Your task to perform on an android device: Find coffee shops on Maps Image 0: 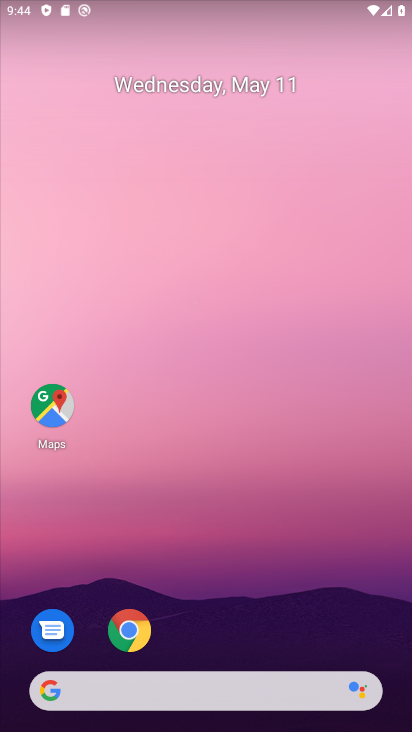
Step 0: press home button
Your task to perform on an android device: Find coffee shops on Maps Image 1: 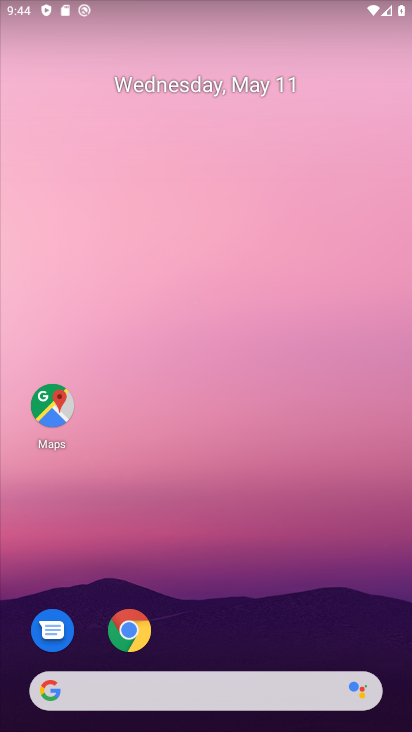
Step 1: click (145, 644)
Your task to perform on an android device: Find coffee shops on Maps Image 2: 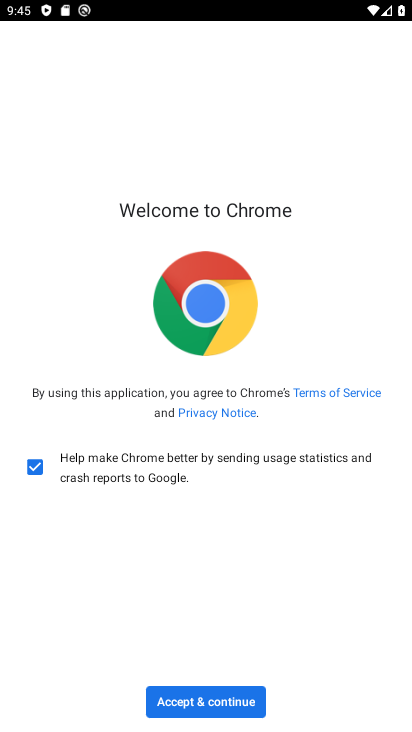
Step 2: click (206, 698)
Your task to perform on an android device: Find coffee shops on Maps Image 3: 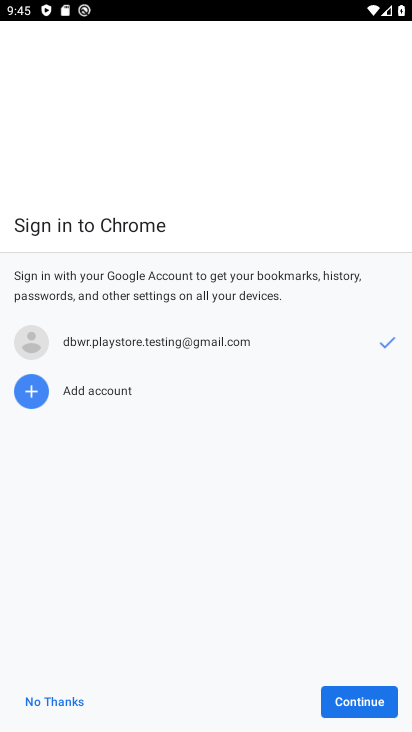
Step 3: click (372, 689)
Your task to perform on an android device: Find coffee shops on Maps Image 4: 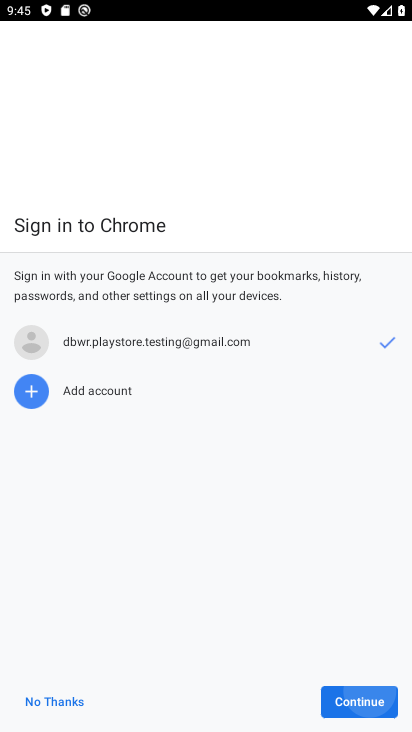
Step 4: click (372, 689)
Your task to perform on an android device: Find coffee shops on Maps Image 5: 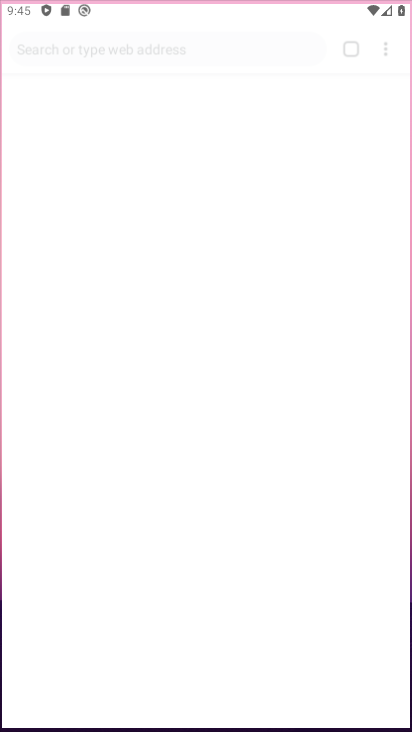
Step 5: click (372, 689)
Your task to perform on an android device: Find coffee shops on Maps Image 6: 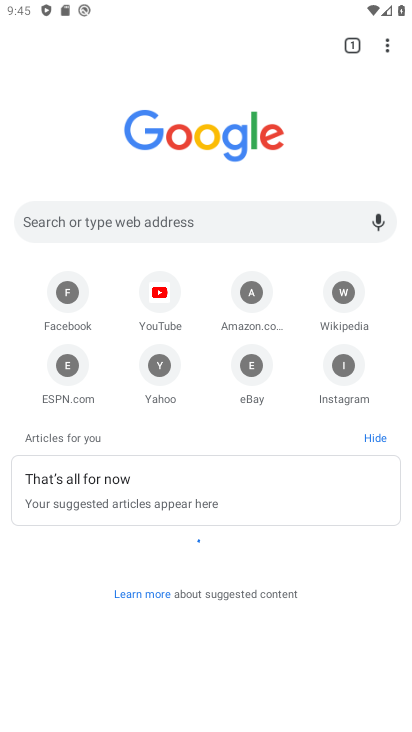
Step 6: click (176, 217)
Your task to perform on an android device: Find coffee shops on Maps Image 7: 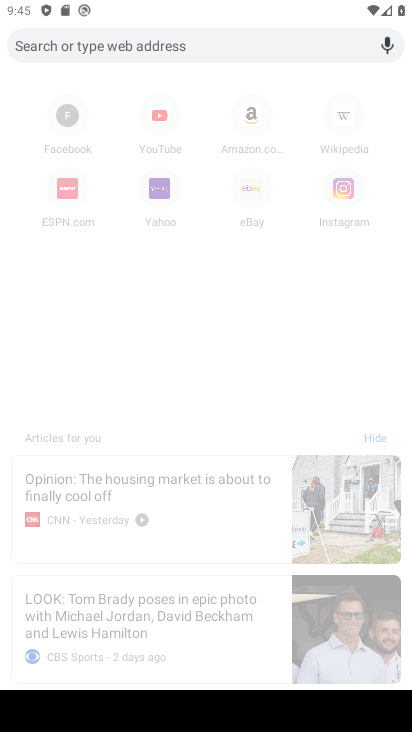
Step 7: press home button
Your task to perform on an android device: Find coffee shops on Maps Image 8: 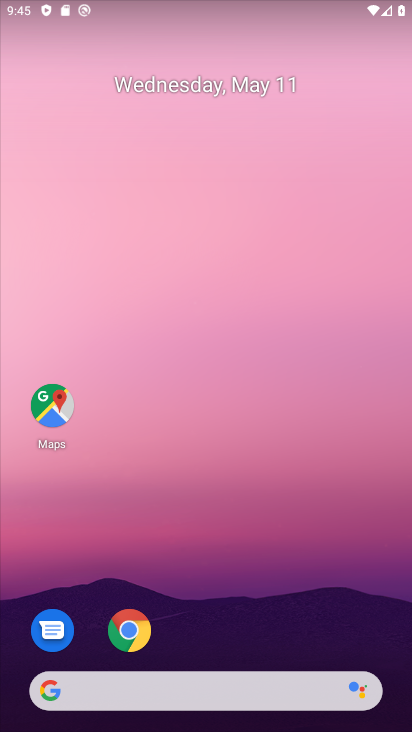
Step 8: drag from (278, 599) to (265, 530)
Your task to perform on an android device: Find coffee shops on Maps Image 9: 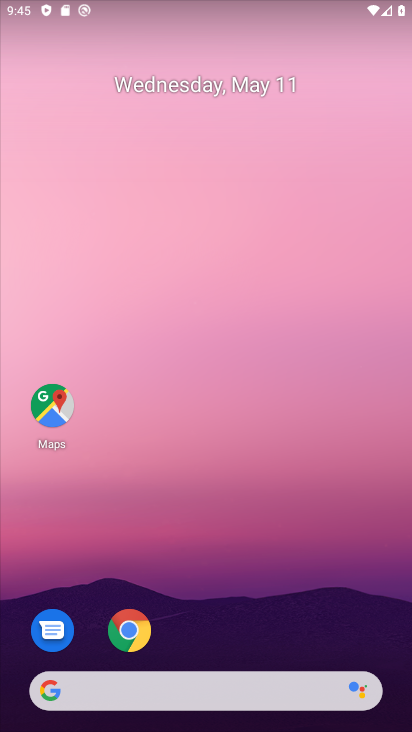
Step 9: click (258, 424)
Your task to perform on an android device: Find coffee shops on Maps Image 10: 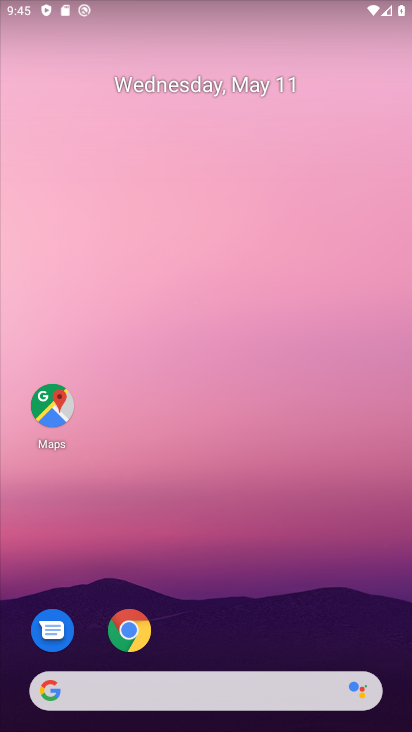
Step 10: drag from (342, 597) to (323, 473)
Your task to perform on an android device: Find coffee shops on Maps Image 11: 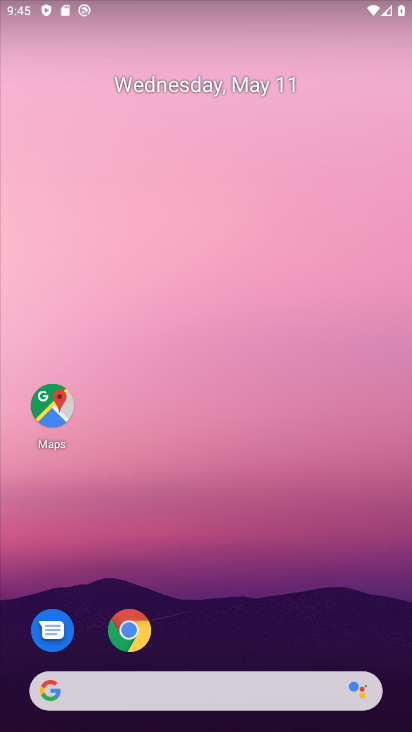
Step 11: drag from (290, 644) to (318, 2)
Your task to perform on an android device: Find coffee shops on Maps Image 12: 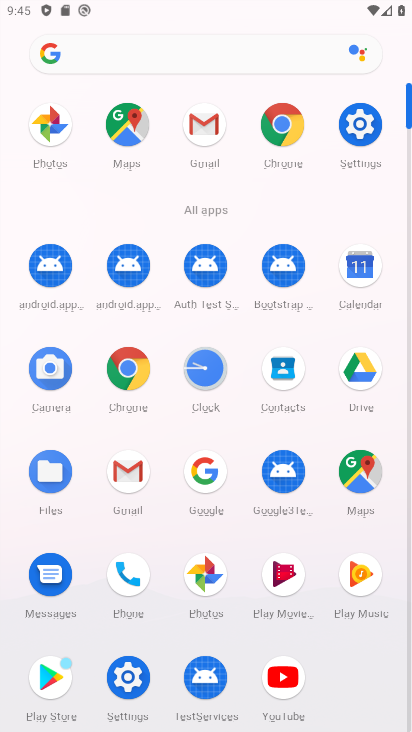
Step 12: click (143, 142)
Your task to perform on an android device: Find coffee shops on Maps Image 13: 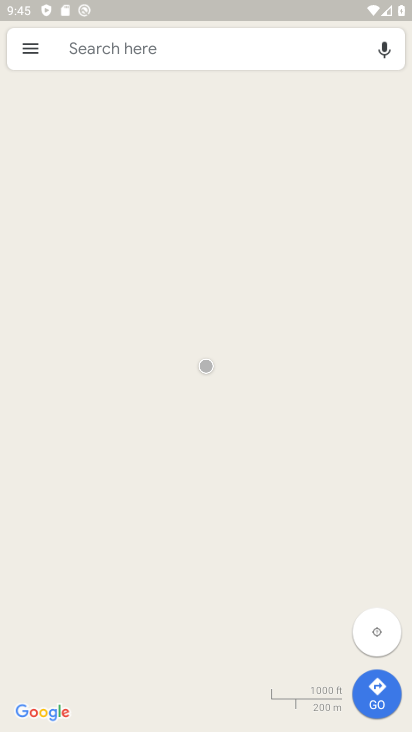
Step 13: click (254, 52)
Your task to perform on an android device: Find coffee shops on Maps Image 14: 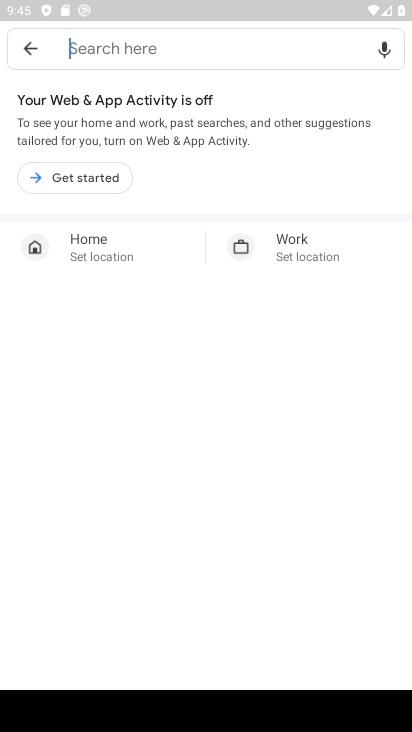
Step 14: type "coffee shops "
Your task to perform on an android device: Find coffee shops on Maps Image 15: 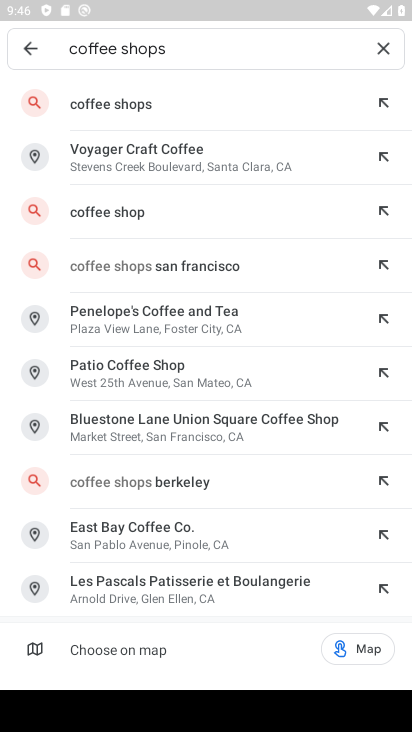
Step 15: click (357, 102)
Your task to perform on an android device: Find coffee shops on Maps Image 16: 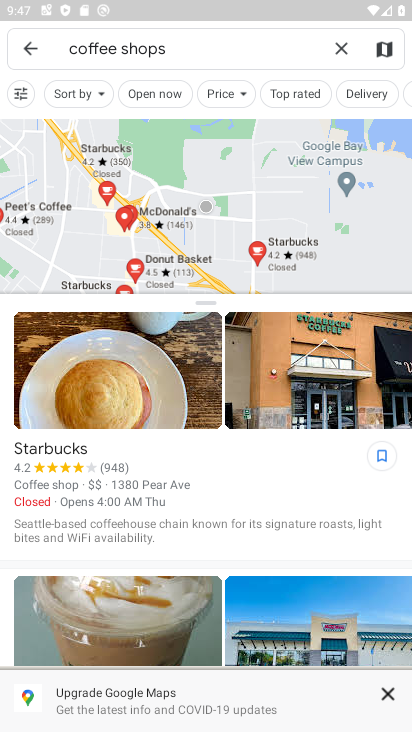
Step 16: task complete